Your task to perform on an android device: What's the weather? Image 0: 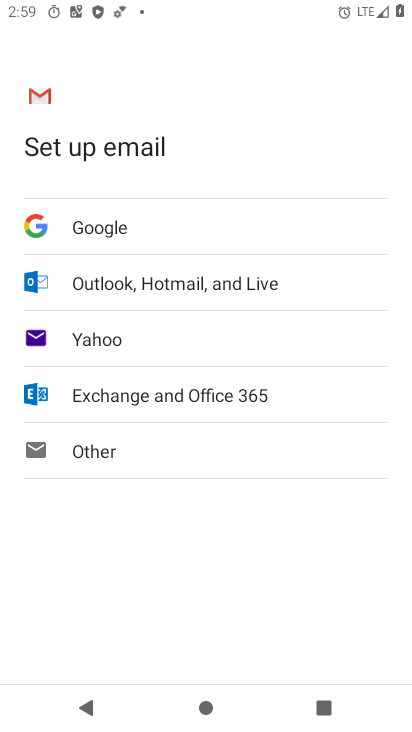
Step 0: press home button
Your task to perform on an android device: What's the weather? Image 1: 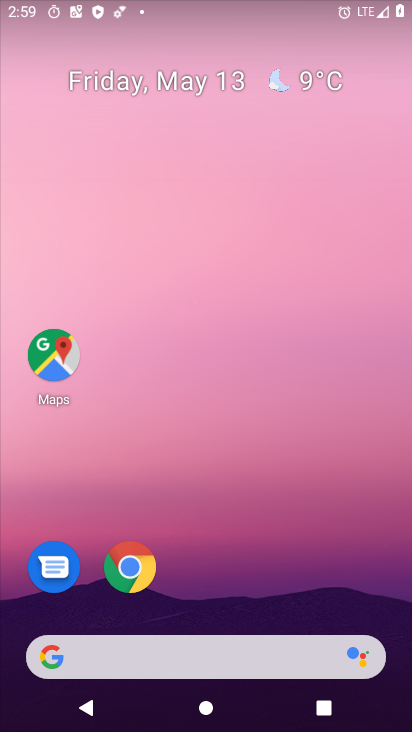
Step 1: click (304, 84)
Your task to perform on an android device: What's the weather? Image 2: 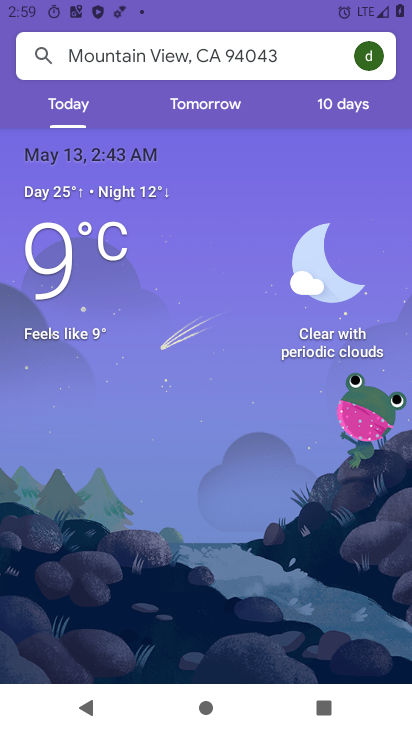
Step 2: task complete